Your task to perform on an android device: add a label to a message in the gmail app Image 0: 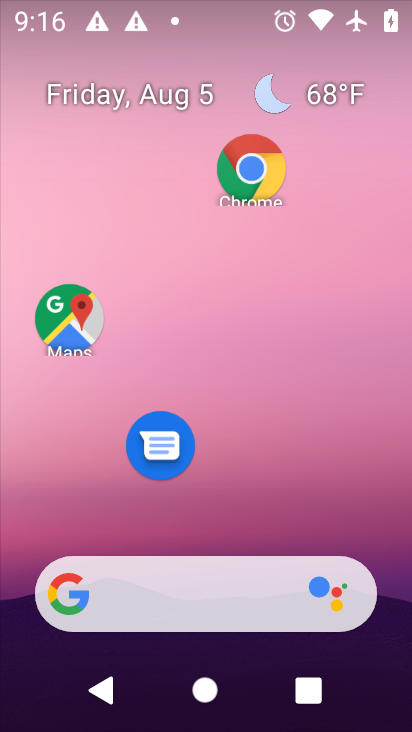
Step 0: drag from (196, 521) to (194, 107)
Your task to perform on an android device: add a label to a message in the gmail app Image 1: 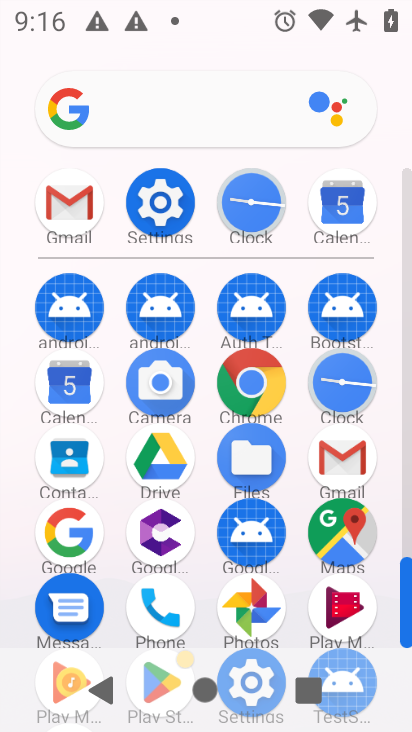
Step 1: click (72, 203)
Your task to perform on an android device: add a label to a message in the gmail app Image 2: 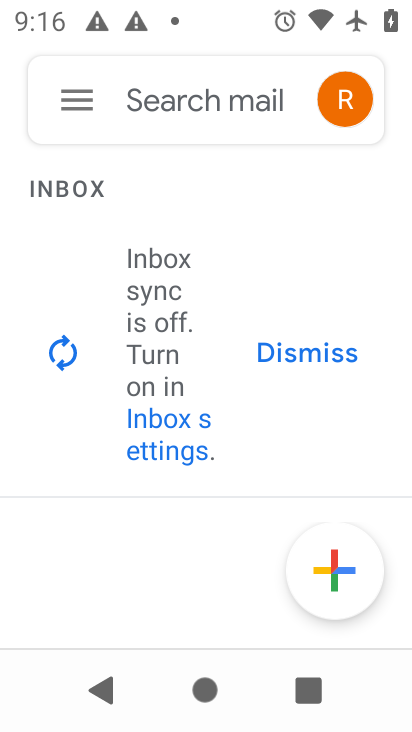
Step 2: click (96, 98)
Your task to perform on an android device: add a label to a message in the gmail app Image 3: 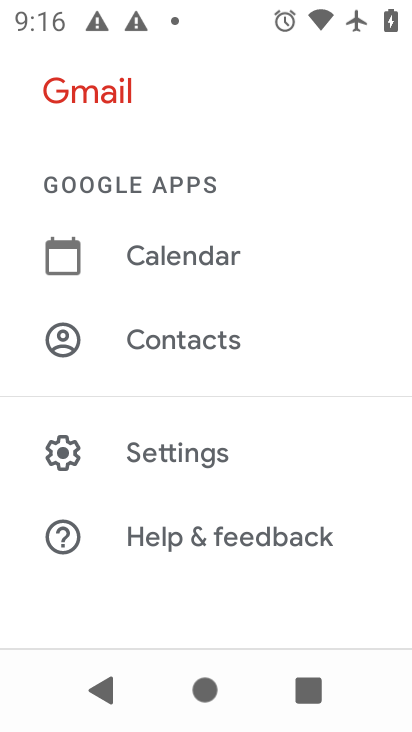
Step 3: task complete